Your task to perform on an android device: Toggle the flashlight Image 0: 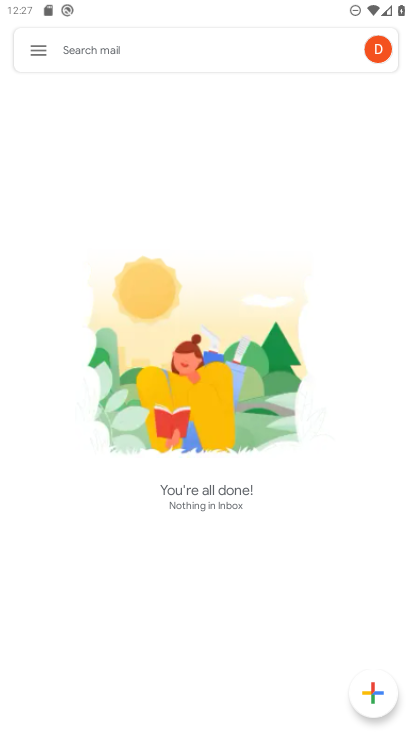
Step 0: press home button
Your task to perform on an android device: Toggle the flashlight Image 1: 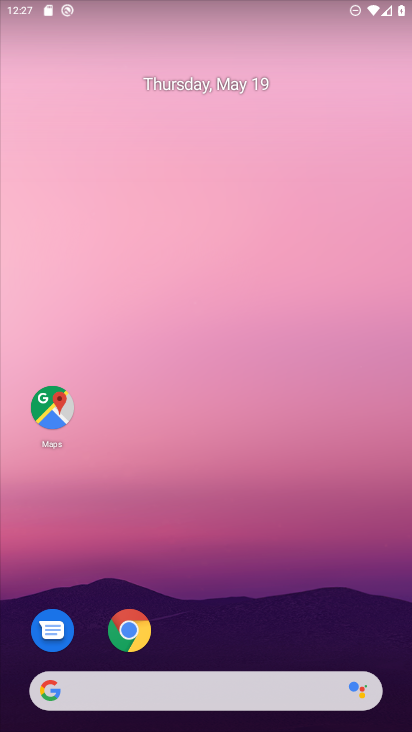
Step 1: drag from (263, 663) to (262, 263)
Your task to perform on an android device: Toggle the flashlight Image 2: 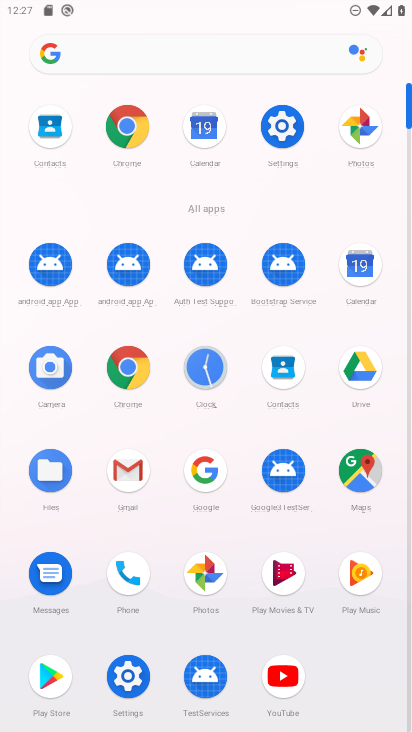
Step 2: click (294, 126)
Your task to perform on an android device: Toggle the flashlight Image 3: 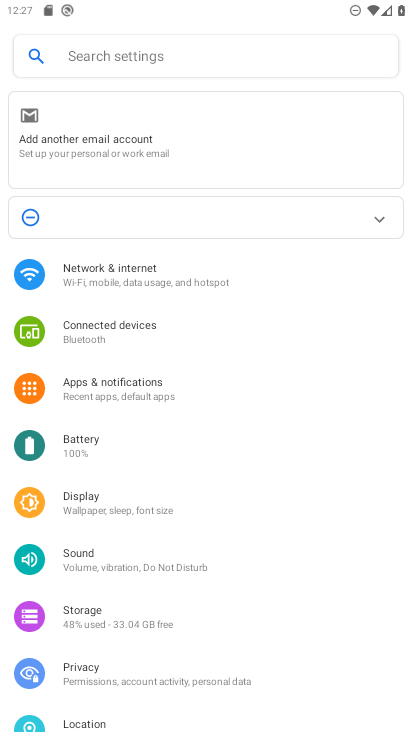
Step 3: click (114, 489)
Your task to perform on an android device: Toggle the flashlight Image 4: 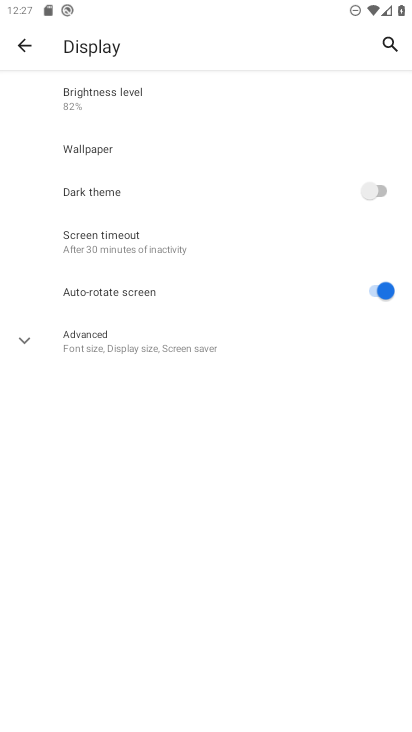
Step 4: task complete